Your task to perform on an android device: When is my next meeting? Image 0: 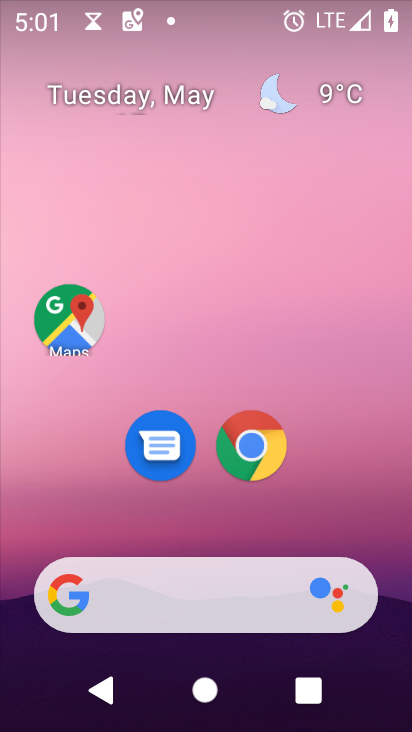
Step 0: drag from (150, 614) to (210, 195)
Your task to perform on an android device: When is my next meeting? Image 1: 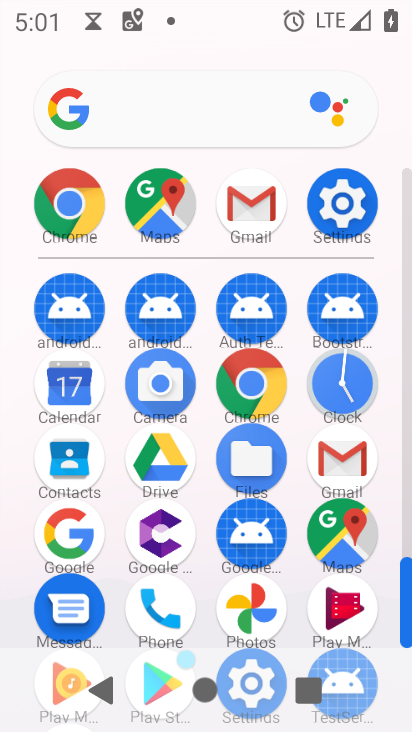
Step 1: click (76, 394)
Your task to perform on an android device: When is my next meeting? Image 2: 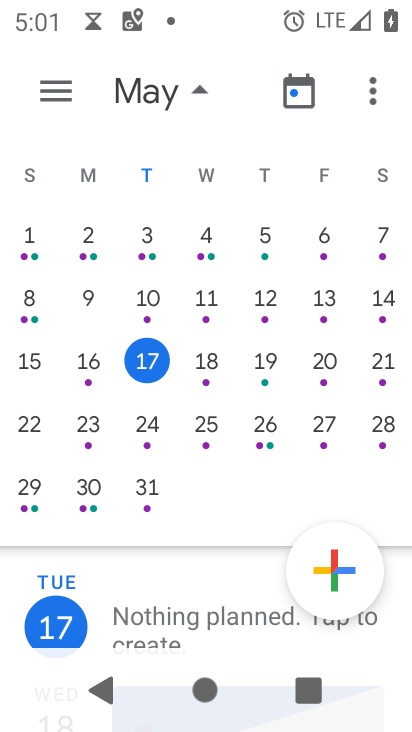
Step 2: click (142, 367)
Your task to perform on an android device: When is my next meeting? Image 3: 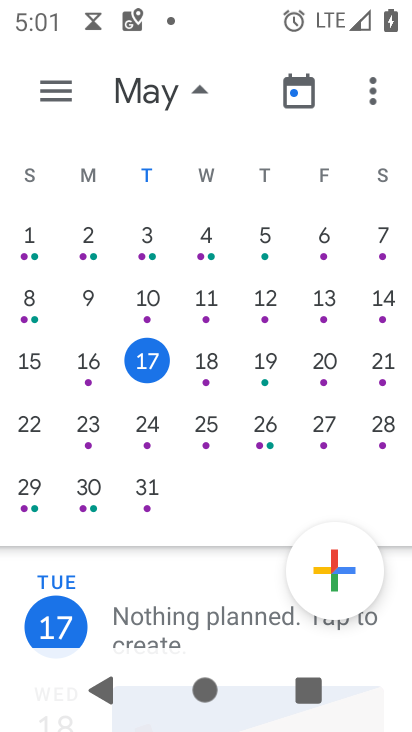
Step 3: task complete